Your task to perform on an android device: find which apps use the phone's location Image 0: 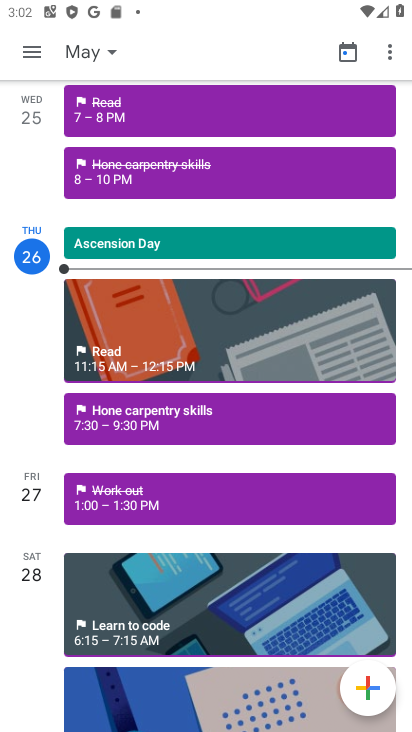
Step 0: press home button
Your task to perform on an android device: find which apps use the phone's location Image 1: 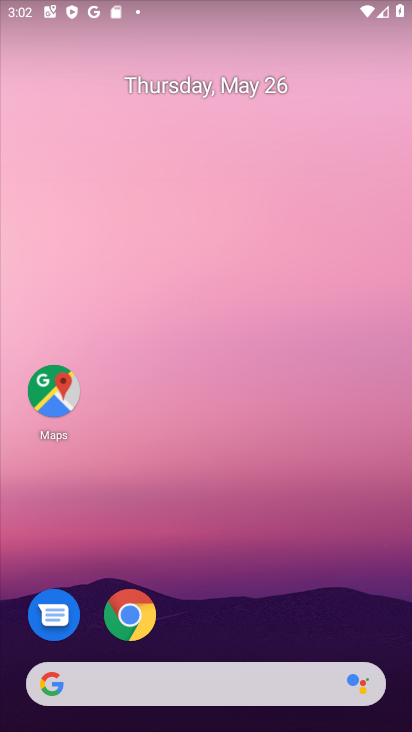
Step 1: drag from (247, 647) to (229, 6)
Your task to perform on an android device: find which apps use the phone's location Image 2: 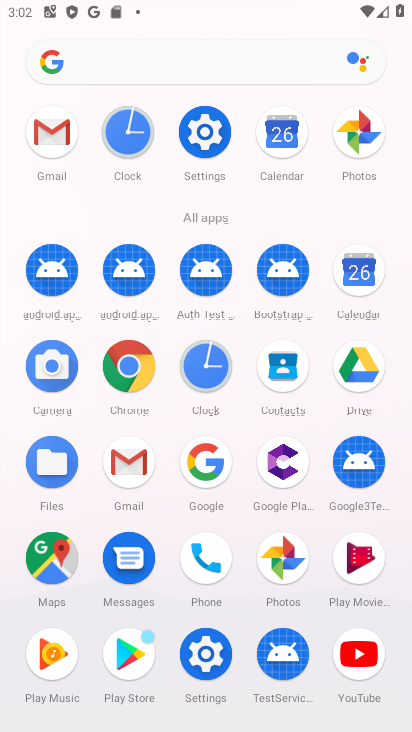
Step 2: click (211, 655)
Your task to perform on an android device: find which apps use the phone's location Image 3: 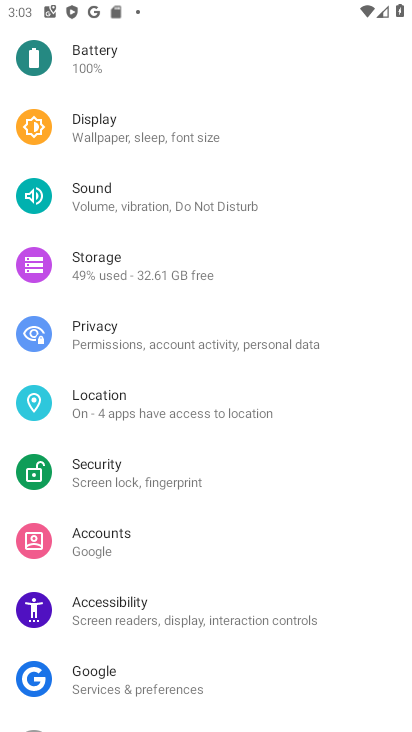
Step 3: drag from (151, 190) to (149, 551)
Your task to perform on an android device: find which apps use the phone's location Image 4: 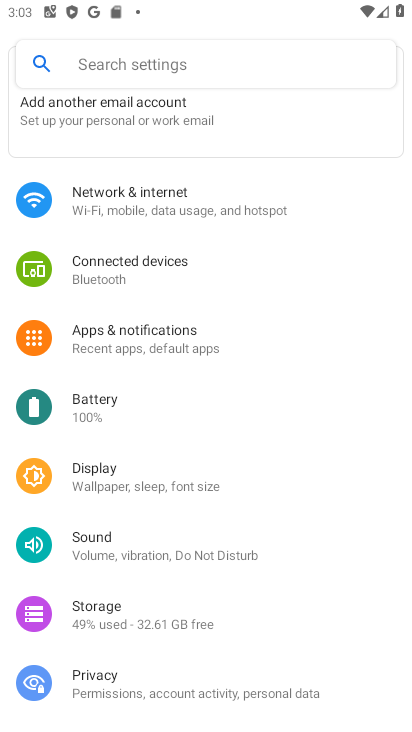
Step 4: drag from (146, 628) to (157, 254)
Your task to perform on an android device: find which apps use the phone's location Image 5: 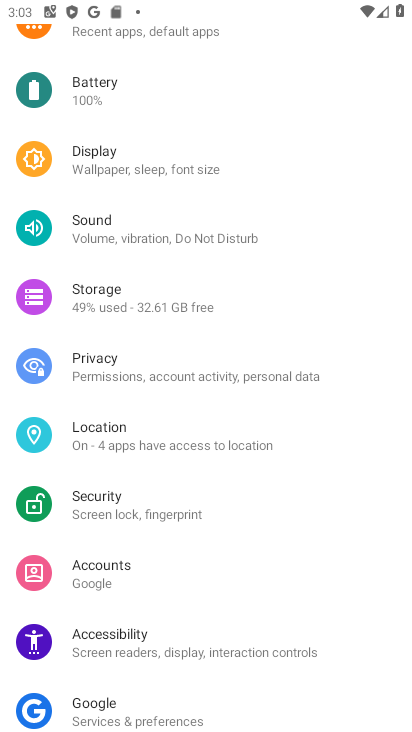
Step 5: click (116, 434)
Your task to perform on an android device: find which apps use the phone's location Image 6: 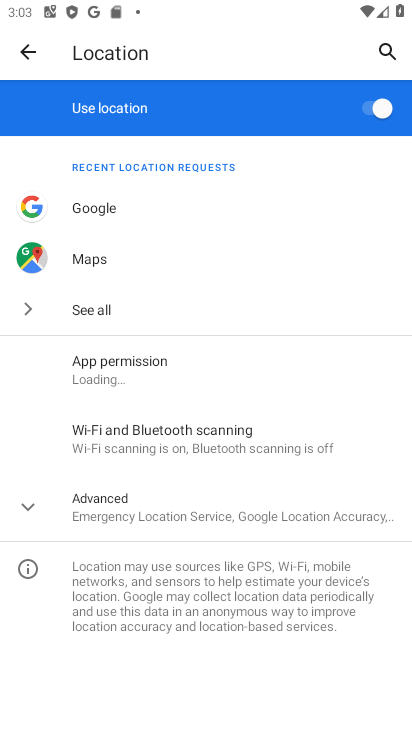
Step 6: click (120, 501)
Your task to perform on an android device: find which apps use the phone's location Image 7: 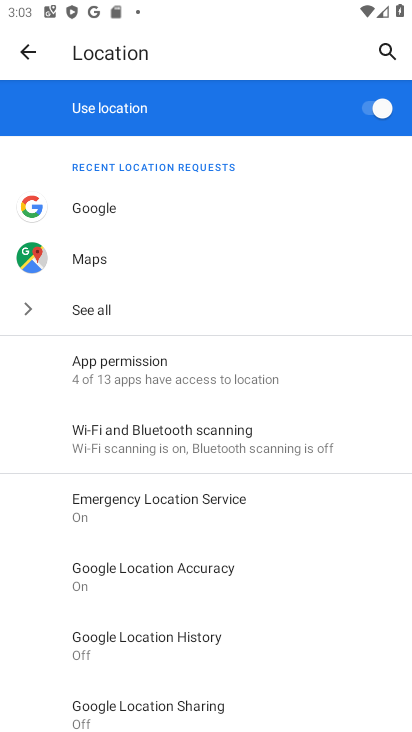
Step 7: click (112, 374)
Your task to perform on an android device: find which apps use the phone's location Image 8: 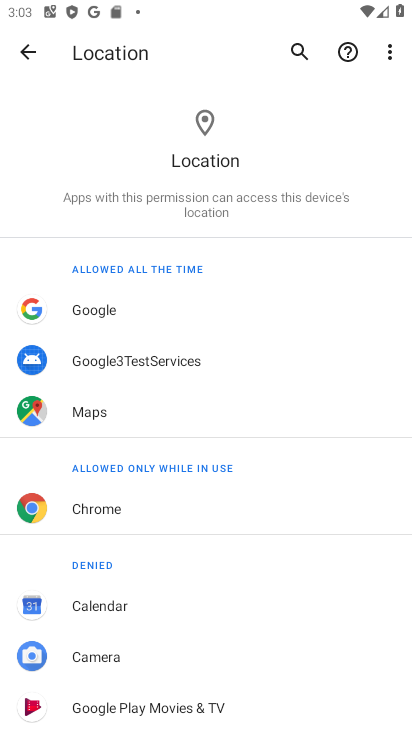
Step 8: task complete